Your task to perform on an android device: Toggle the flashlight Image 0: 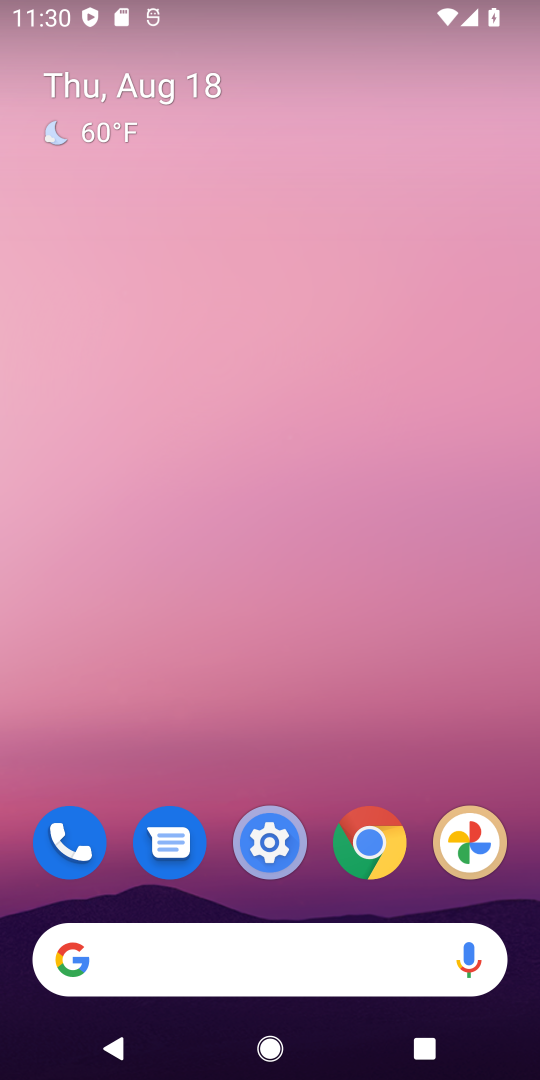
Step 0: click (280, 859)
Your task to perform on an android device: Toggle the flashlight Image 1: 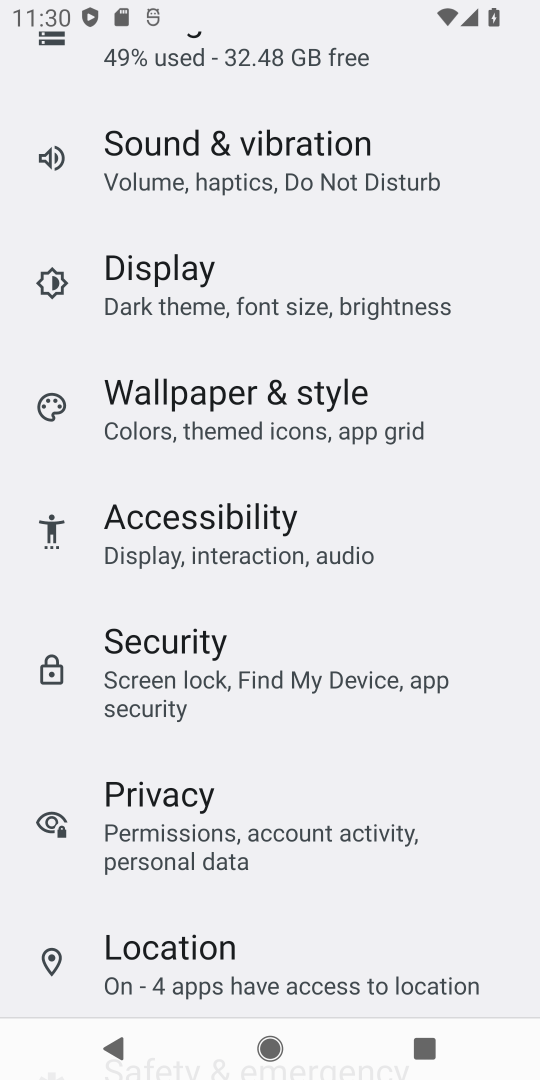
Step 1: task complete